Your task to perform on an android device: search for starred emails in the gmail app Image 0: 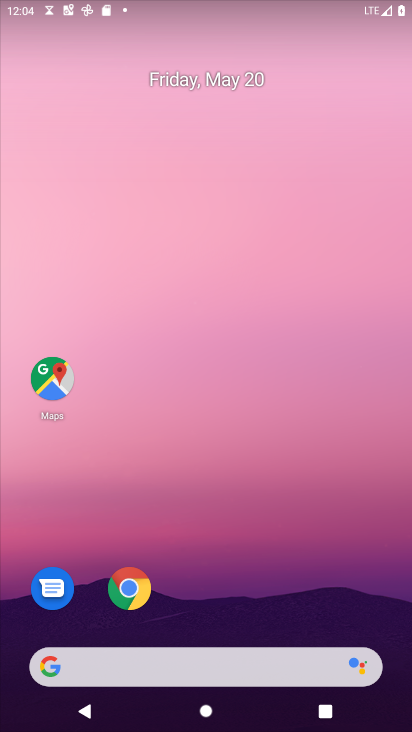
Step 0: drag from (289, 536) to (179, 45)
Your task to perform on an android device: search for starred emails in the gmail app Image 1: 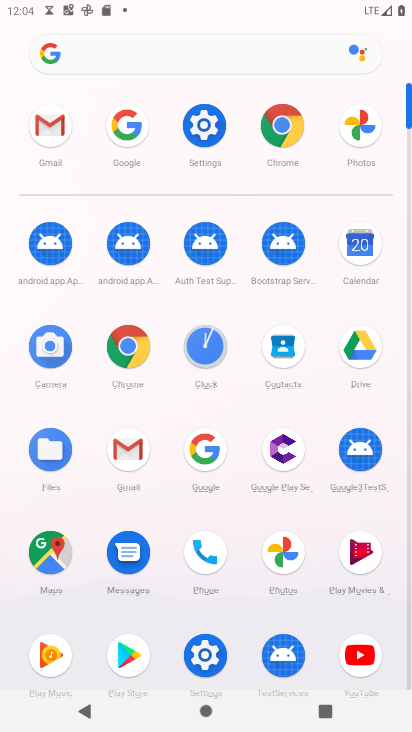
Step 1: click (123, 455)
Your task to perform on an android device: search for starred emails in the gmail app Image 2: 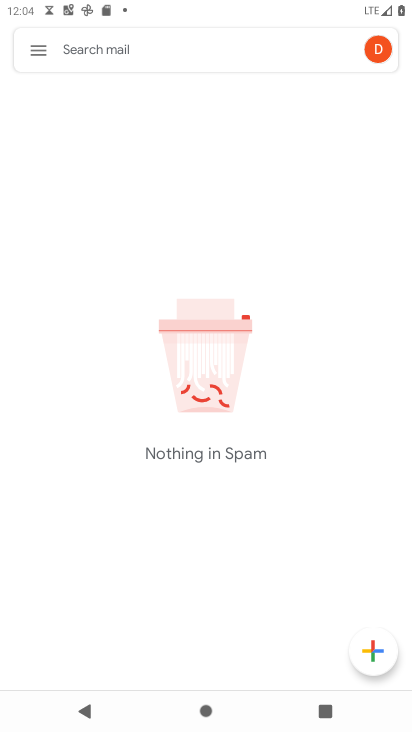
Step 2: click (117, 50)
Your task to perform on an android device: search for starred emails in the gmail app Image 3: 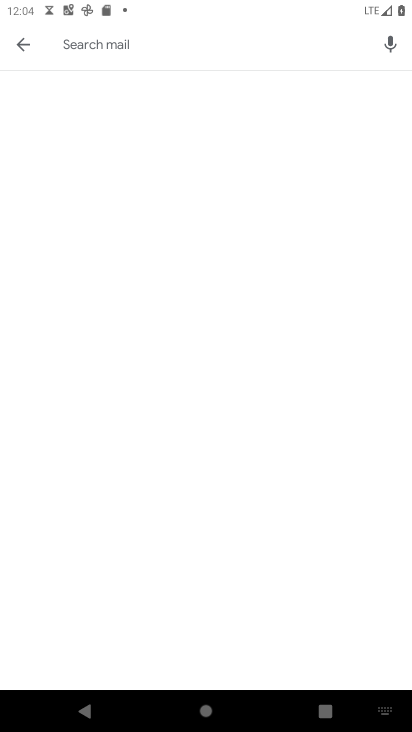
Step 3: type "starred"
Your task to perform on an android device: search for starred emails in the gmail app Image 4: 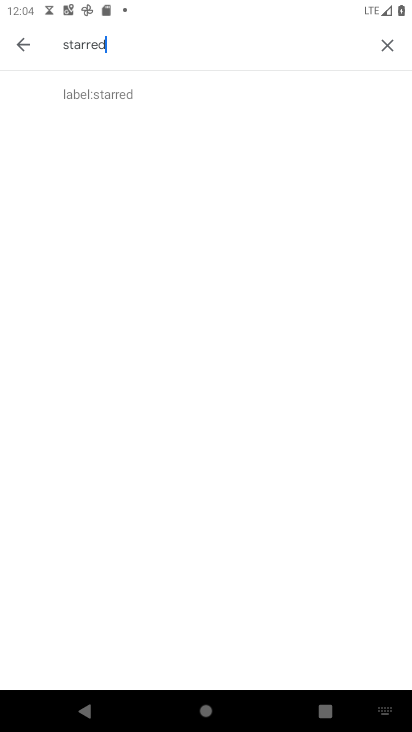
Step 4: click (140, 109)
Your task to perform on an android device: search for starred emails in the gmail app Image 5: 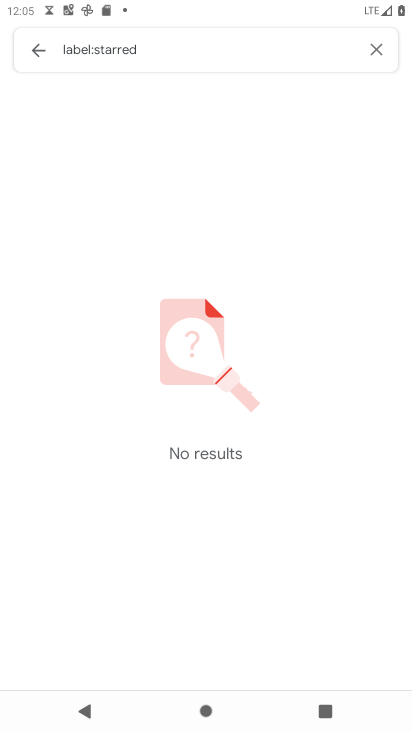
Step 5: task complete